Your task to perform on an android device: change text size in settings app Image 0: 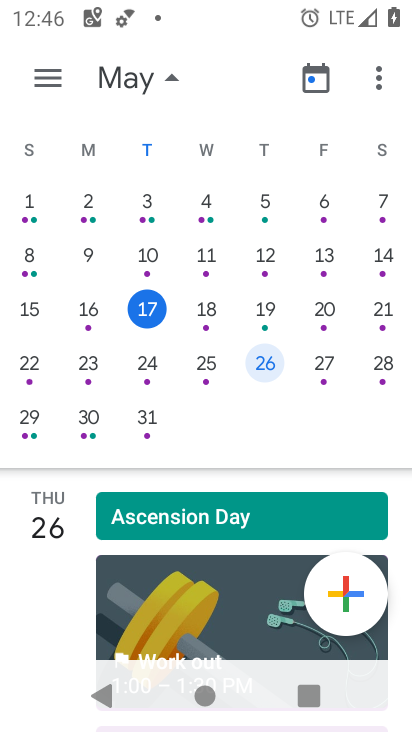
Step 0: press home button
Your task to perform on an android device: change text size in settings app Image 1: 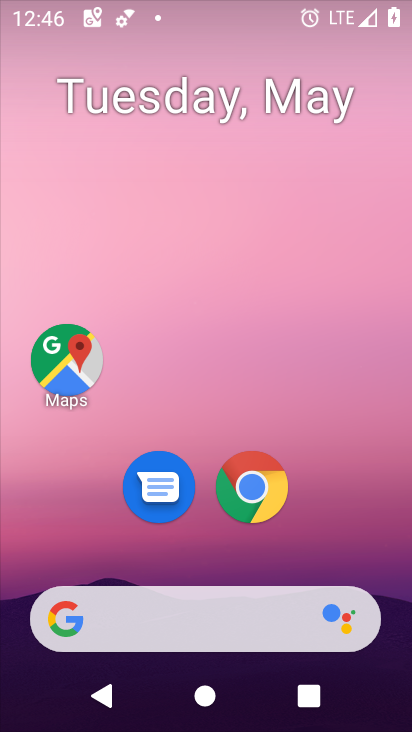
Step 1: drag from (50, 431) to (238, 100)
Your task to perform on an android device: change text size in settings app Image 2: 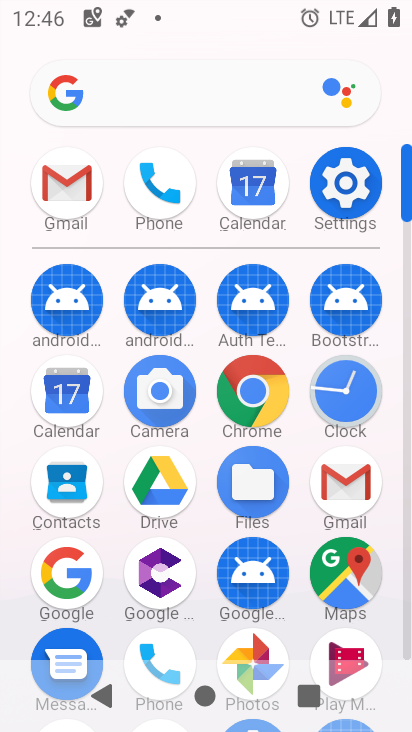
Step 2: click (344, 179)
Your task to perform on an android device: change text size in settings app Image 3: 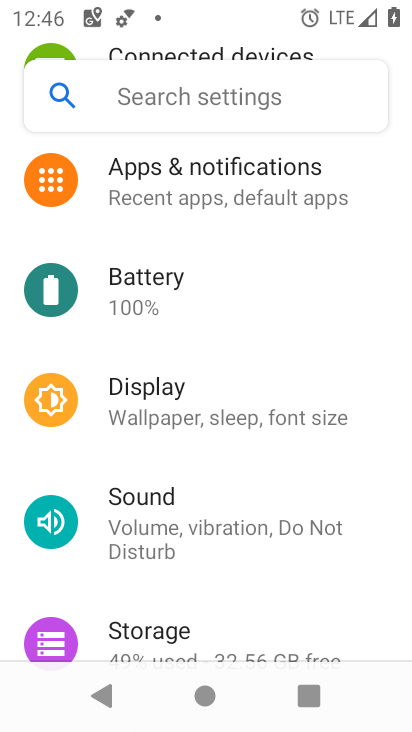
Step 3: drag from (145, 587) to (369, 62)
Your task to perform on an android device: change text size in settings app Image 4: 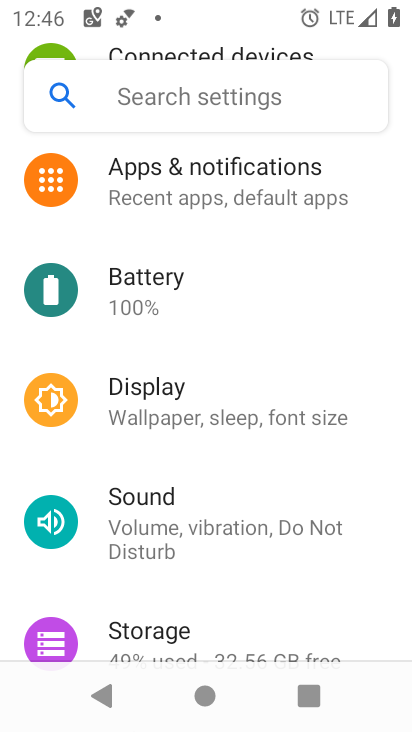
Step 4: click (194, 424)
Your task to perform on an android device: change text size in settings app Image 5: 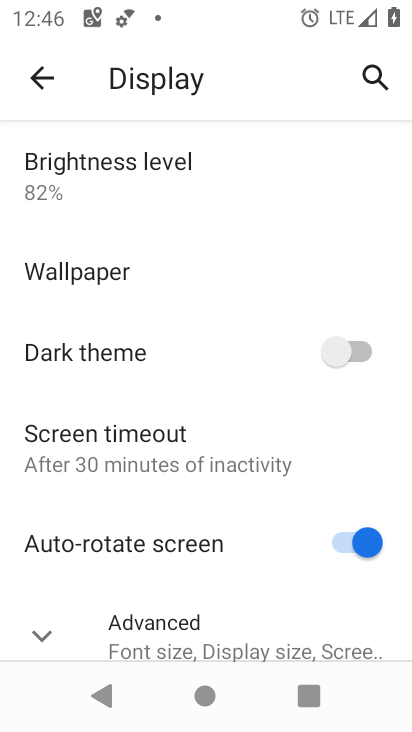
Step 5: click (130, 647)
Your task to perform on an android device: change text size in settings app Image 6: 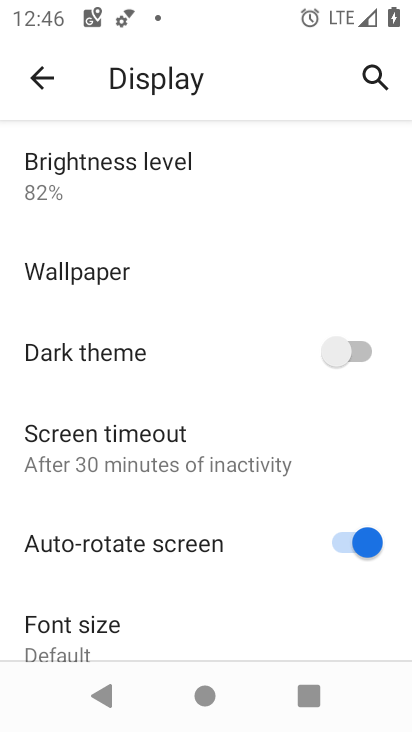
Step 6: drag from (17, 661) to (282, 125)
Your task to perform on an android device: change text size in settings app Image 7: 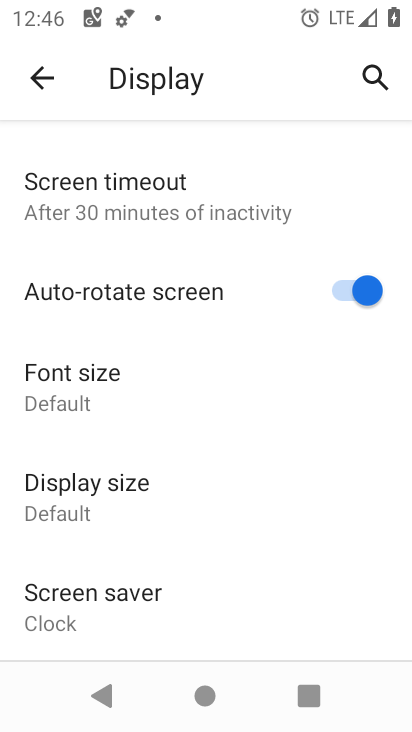
Step 7: click (133, 395)
Your task to perform on an android device: change text size in settings app Image 8: 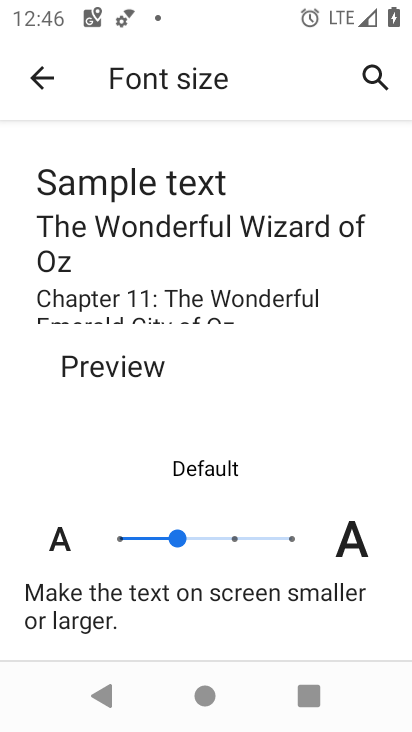
Step 8: click (237, 545)
Your task to perform on an android device: change text size in settings app Image 9: 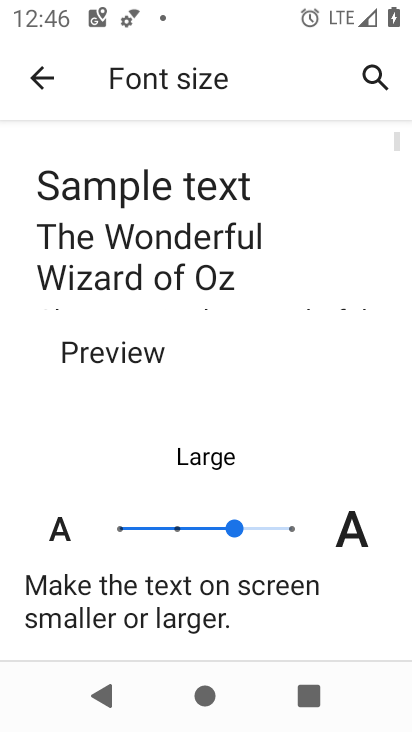
Step 9: task complete